Your task to perform on an android device: Go to Yahoo.com Image 0: 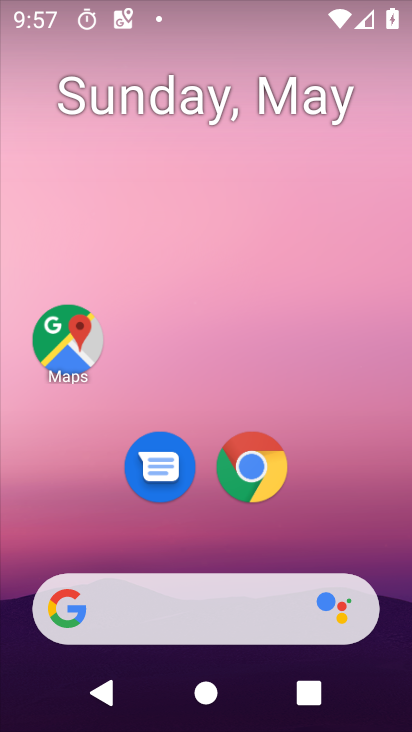
Step 0: click (254, 469)
Your task to perform on an android device: Go to Yahoo.com Image 1: 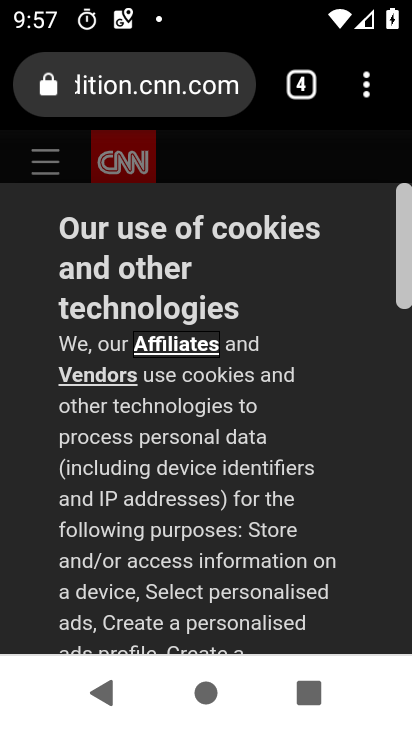
Step 1: click (296, 92)
Your task to perform on an android device: Go to Yahoo.com Image 2: 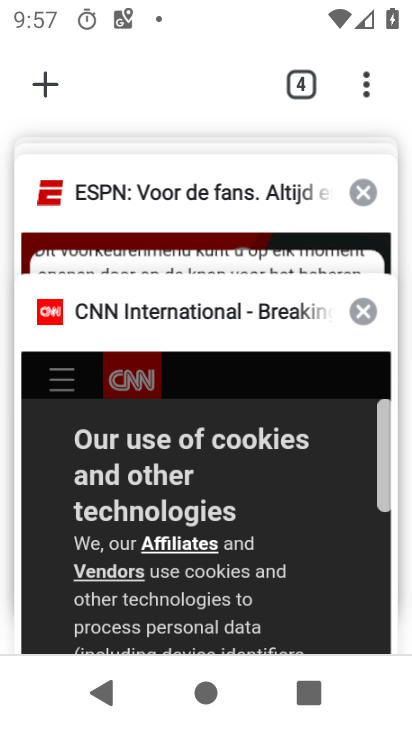
Step 2: drag from (133, 222) to (144, 381)
Your task to perform on an android device: Go to Yahoo.com Image 3: 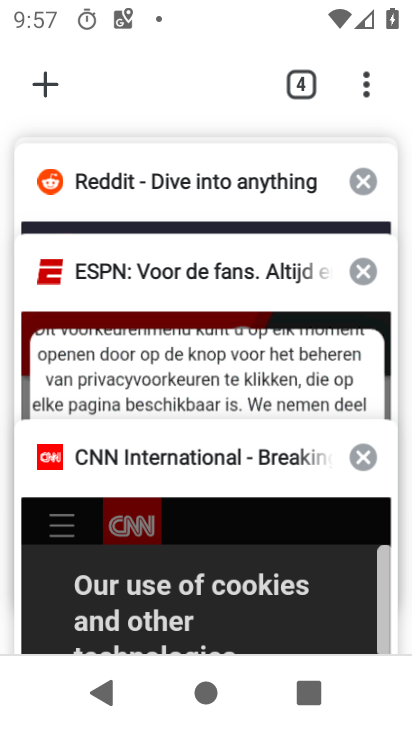
Step 3: drag from (167, 260) to (172, 360)
Your task to perform on an android device: Go to Yahoo.com Image 4: 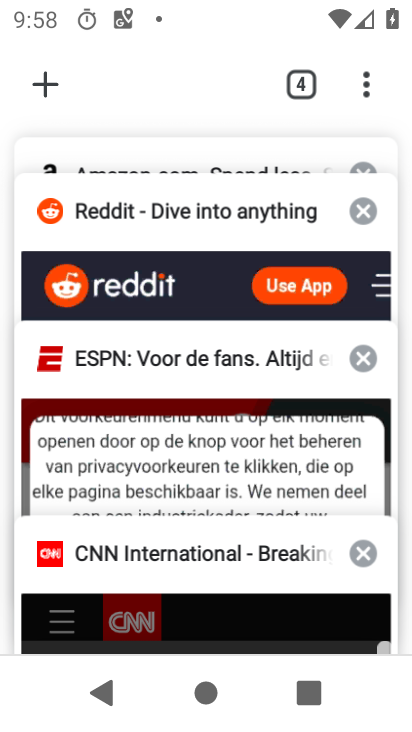
Step 4: drag from (159, 200) to (168, 310)
Your task to perform on an android device: Go to Yahoo.com Image 5: 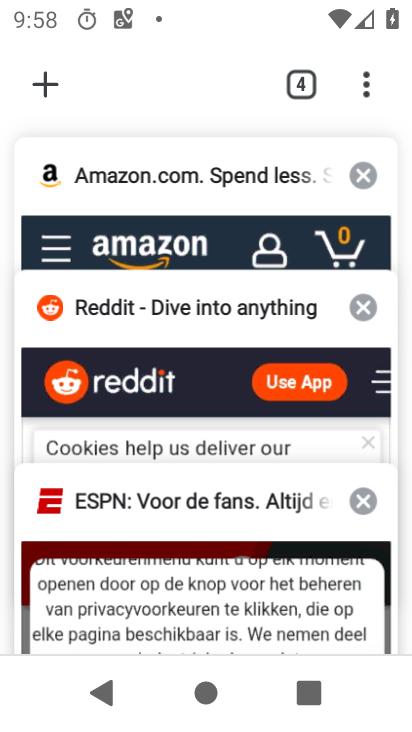
Step 5: drag from (162, 193) to (175, 315)
Your task to perform on an android device: Go to Yahoo.com Image 6: 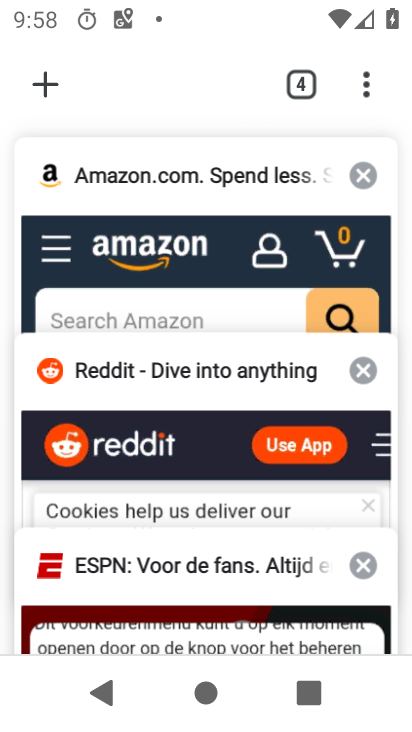
Step 6: drag from (175, 176) to (193, 320)
Your task to perform on an android device: Go to Yahoo.com Image 7: 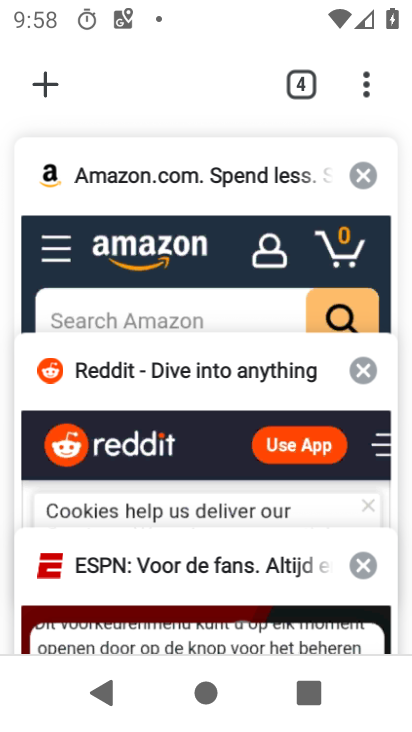
Step 7: click (49, 73)
Your task to perform on an android device: Go to Yahoo.com Image 8: 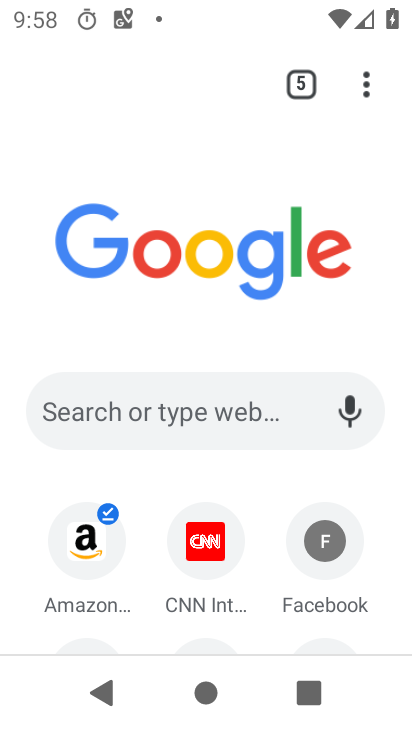
Step 8: drag from (215, 543) to (221, 303)
Your task to perform on an android device: Go to Yahoo.com Image 9: 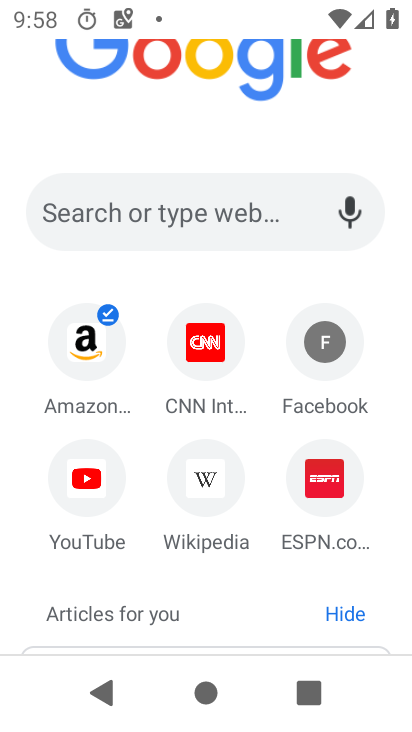
Step 9: click (158, 196)
Your task to perform on an android device: Go to Yahoo.com Image 10: 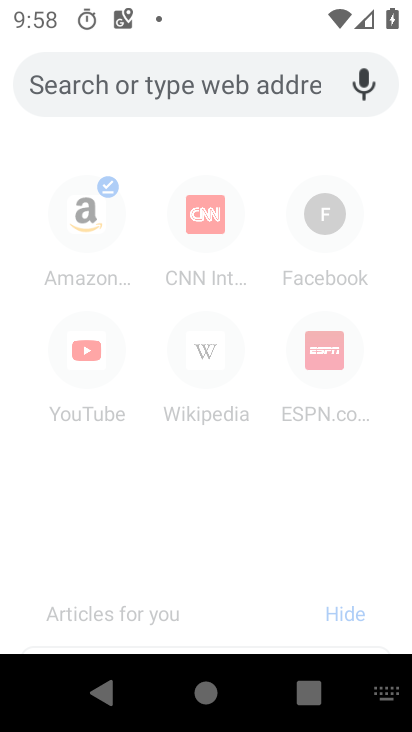
Step 10: type "Yahoo.com"
Your task to perform on an android device: Go to Yahoo.com Image 11: 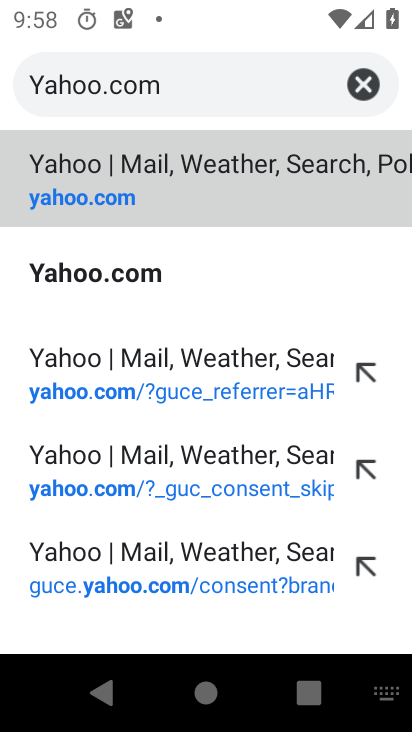
Step 11: click (161, 258)
Your task to perform on an android device: Go to Yahoo.com Image 12: 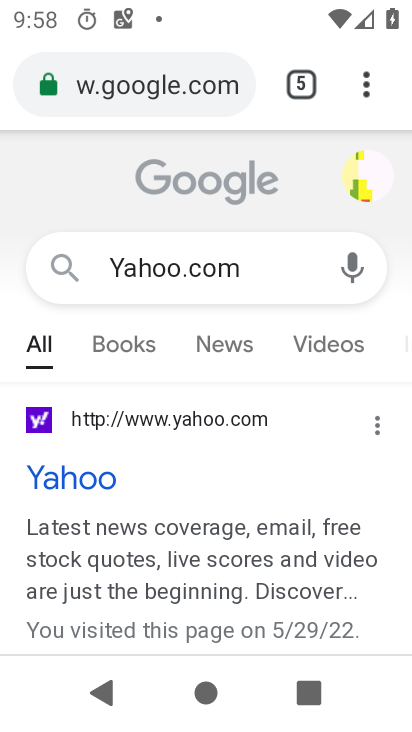
Step 12: click (81, 475)
Your task to perform on an android device: Go to Yahoo.com Image 13: 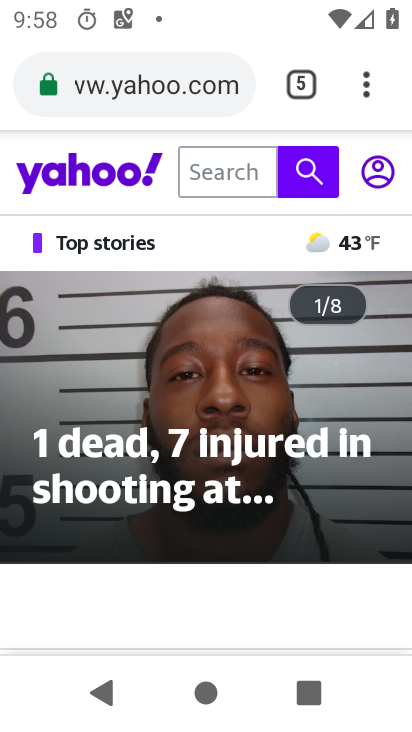
Step 13: task complete